Your task to perform on an android device: Clear the cart on ebay.com. Add "razer nari" to the cart on ebay.com Image 0: 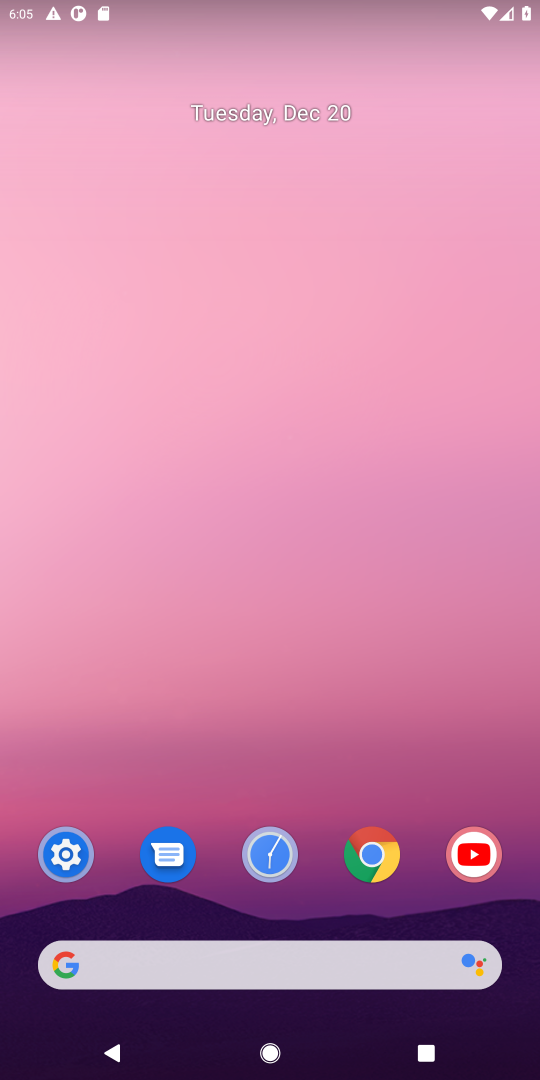
Step 0: click (369, 864)
Your task to perform on an android device: Clear the cart on ebay.com. Add "razer nari" to the cart on ebay.com Image 1: 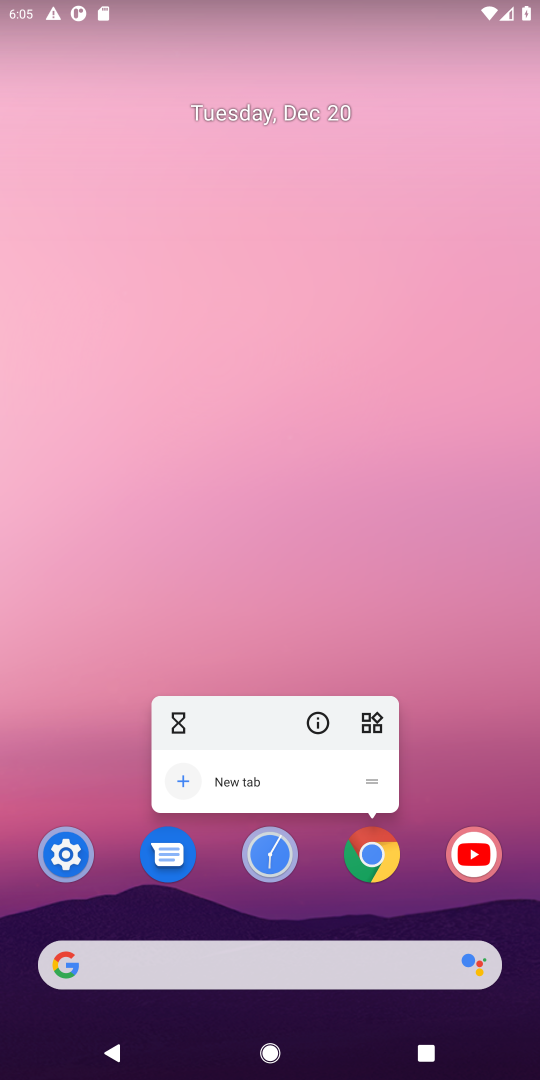
Step 1: click (378, 855)
Your task to perform on an android device: Clear the cart on ebay.com. Add "razer nari" to the cart on ebay.com Image 2: 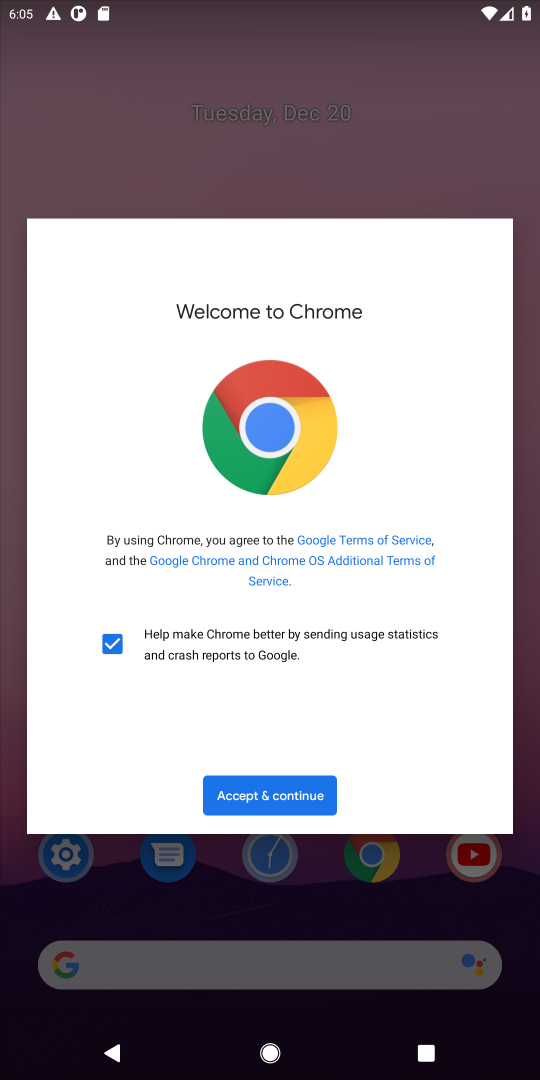
Step 2: click (250, 796)
Your task to perform on an android device: Clear the cart on ebay.com. Add "razer nari" to the cart on ebay.com Image 3: 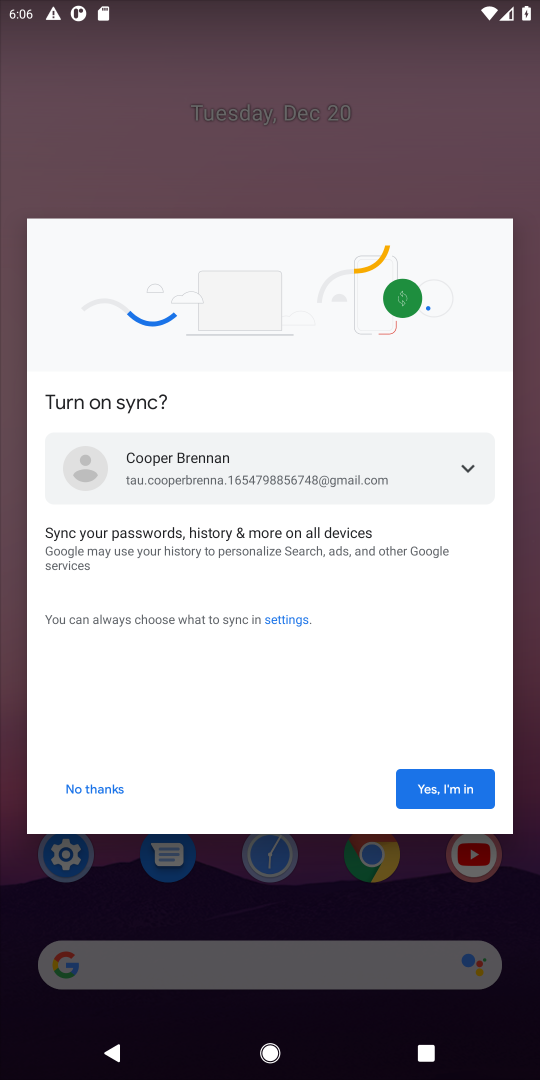
Step 3: click (82, 789)
Your task to perform on an android device: Clear the cart on ebay.com. Add "razer nari" to the cart on ebay.com Image 4: 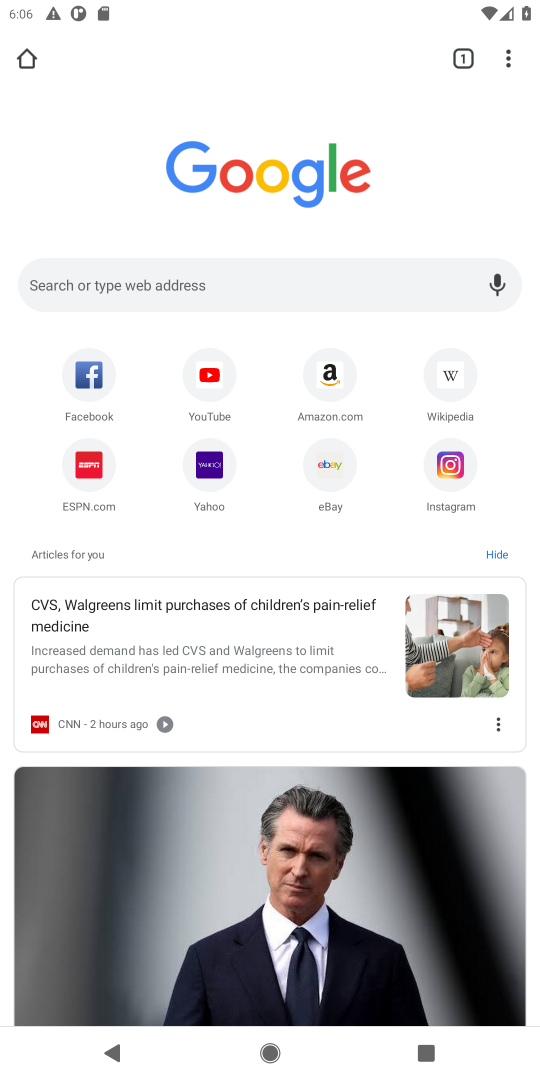
Step 4: click (331, 469)
Your task to perform on an android device: Clear the cart on ebay.com. Add "razer nari" to the cart on ebay.com Image 5: 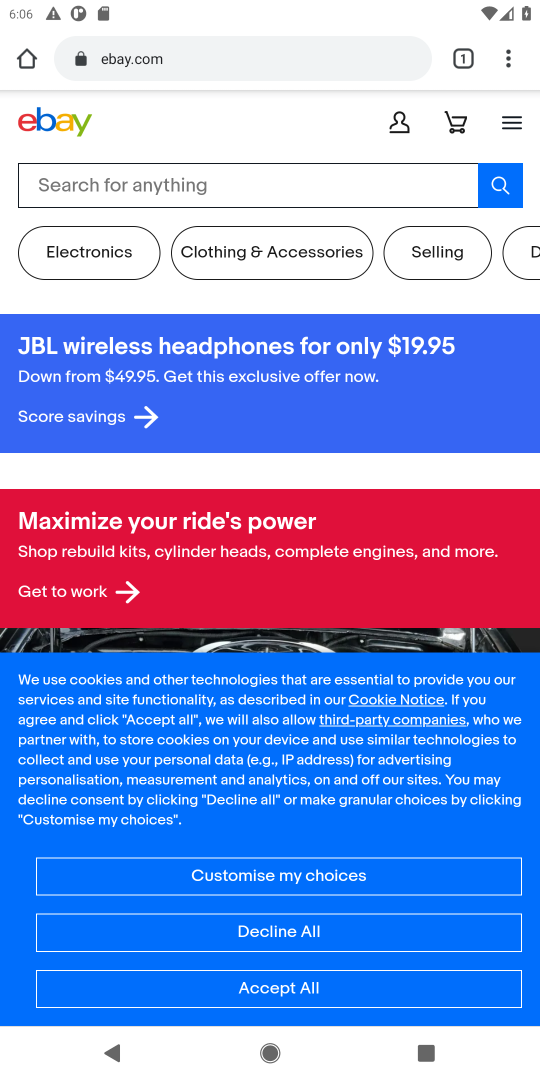
Step 5: click (453, 126)
Your task to perform on an android device: Clear the cart on ebay.com. Add "razer nari" to the cart on ebay.com Image 6: 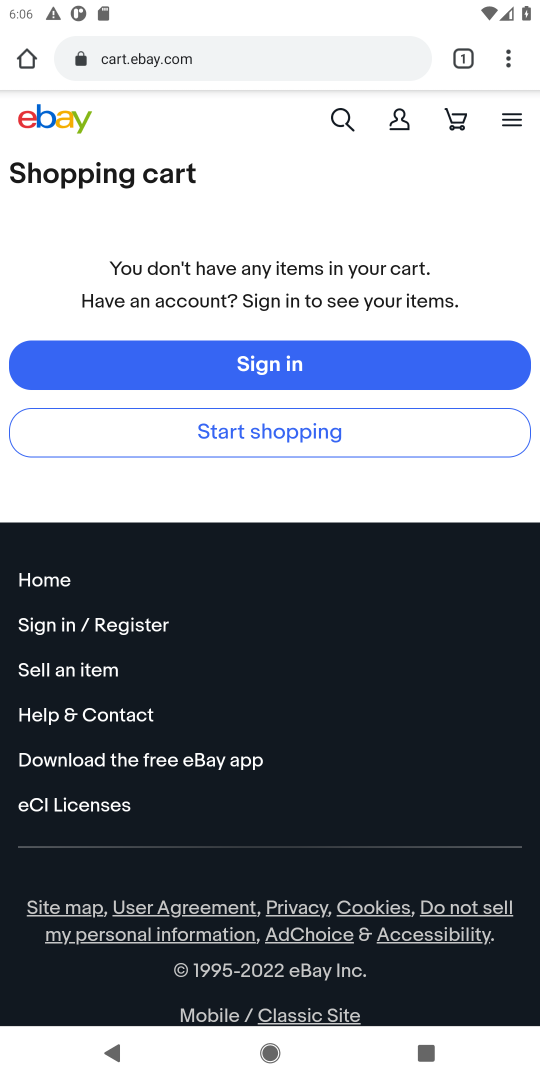
Step 6: click (345, 115)
Your task to perform on an android device: Clear the cart on ebay.com. Add "razer nari" to the cart on ebay.com Image 7: 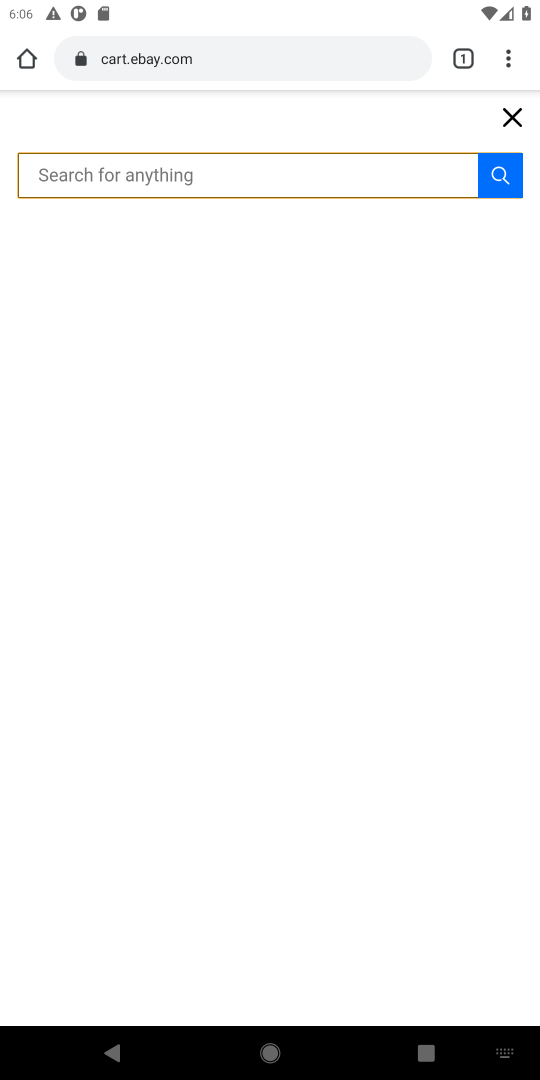
Step 7: type "razer nari"
Your task to perform on an android device: Clear the cart on ebay.com. Add "razer nari" to the cart on ebay.com Image 8: 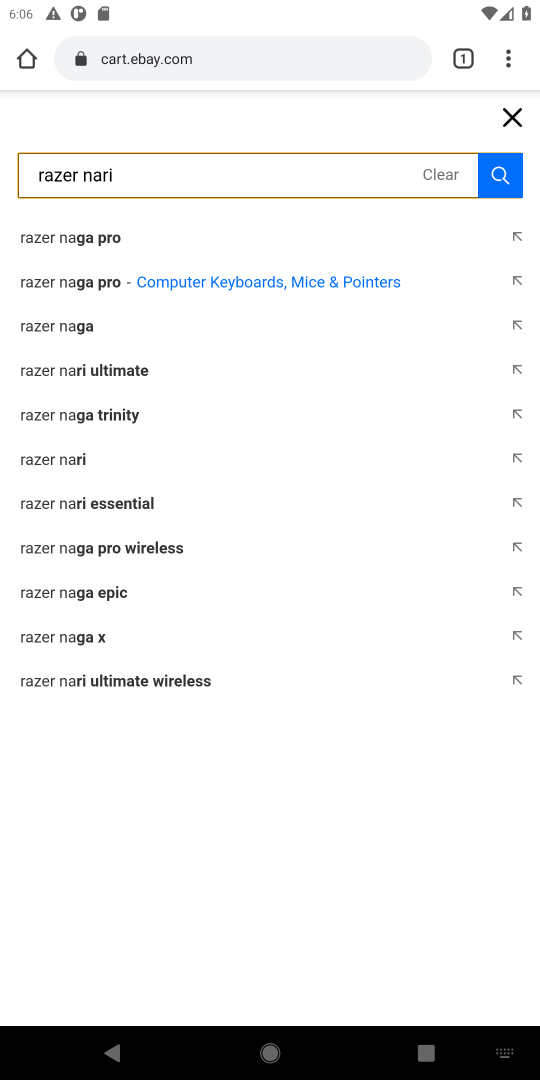
Step 8: click (34, 458)
Your task to perform on an android device: Clear the cart on ebay.com. Add "razer nari" to the cart on ebay.com Image 9: 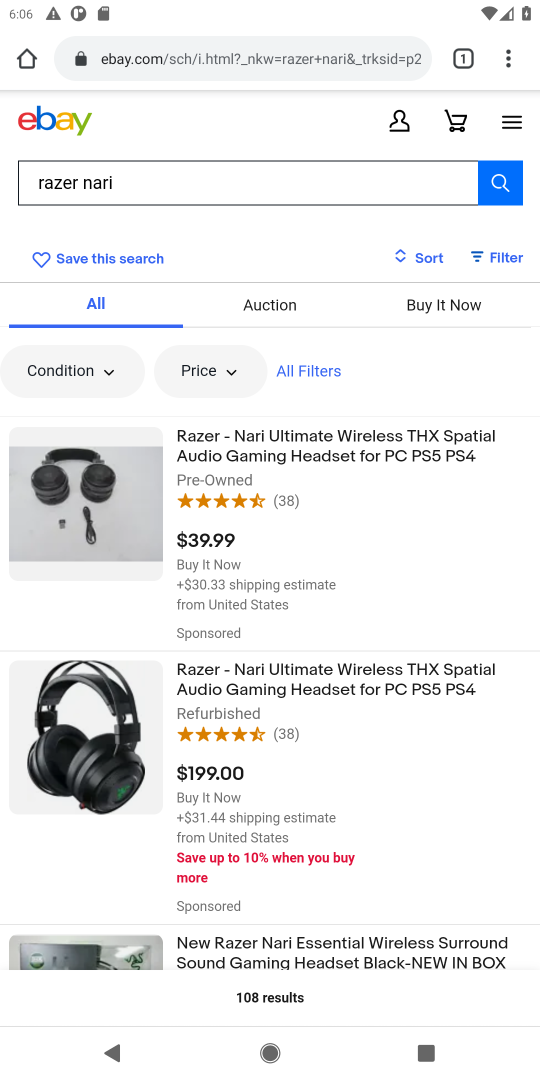
Step 9: click (237, 464)
Your task to perform on an android device: Clear the cart on ebay.com. Add "razer nari" to the cart on ebay.com Image 10: 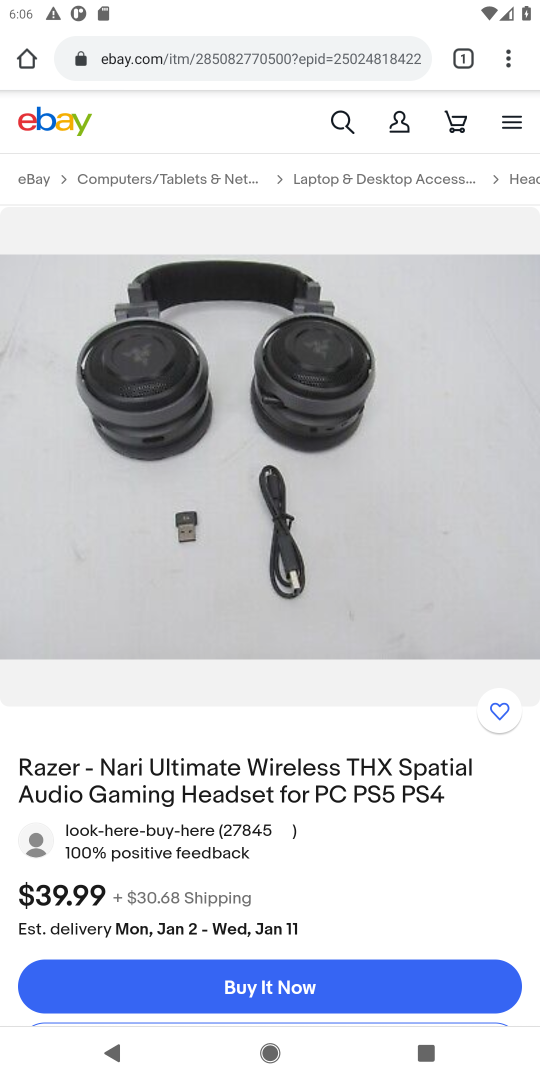
Step 10: drag from (145, 730) to (175, 413)
Your task to perform on an android device: Clear the cart on ebay.com. Add "razer nari" to the cart on ebay.com Image 11: 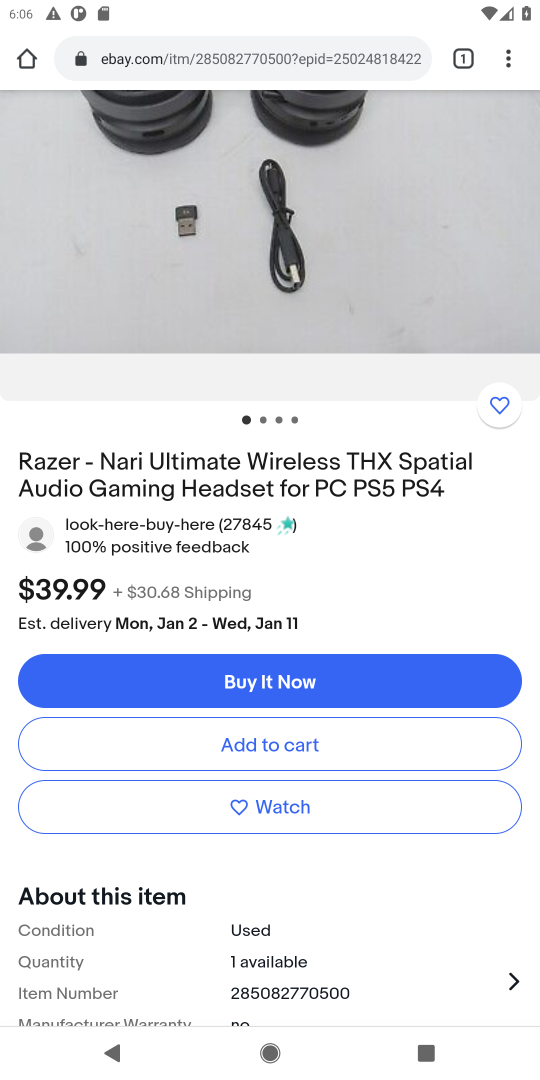
Step 11: click (210, 749)
Your task to perform on an android device: Clear the cart on ebay.com. Add "razer nari" to the cart on ebay.com Image 12: 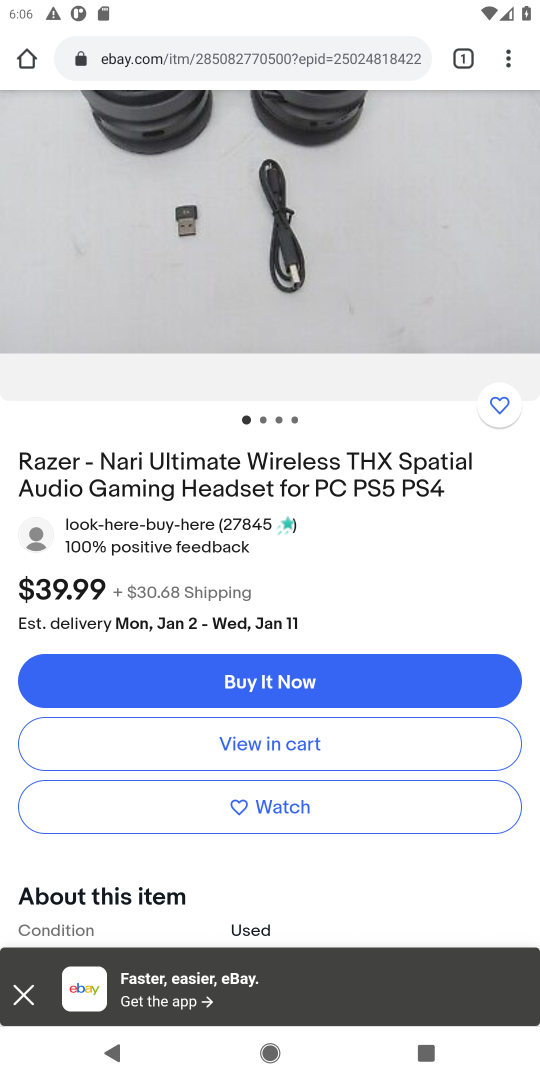
Step 12: task complete